Your task to perform on an android device: Open Maps and search for coffee Image 0: 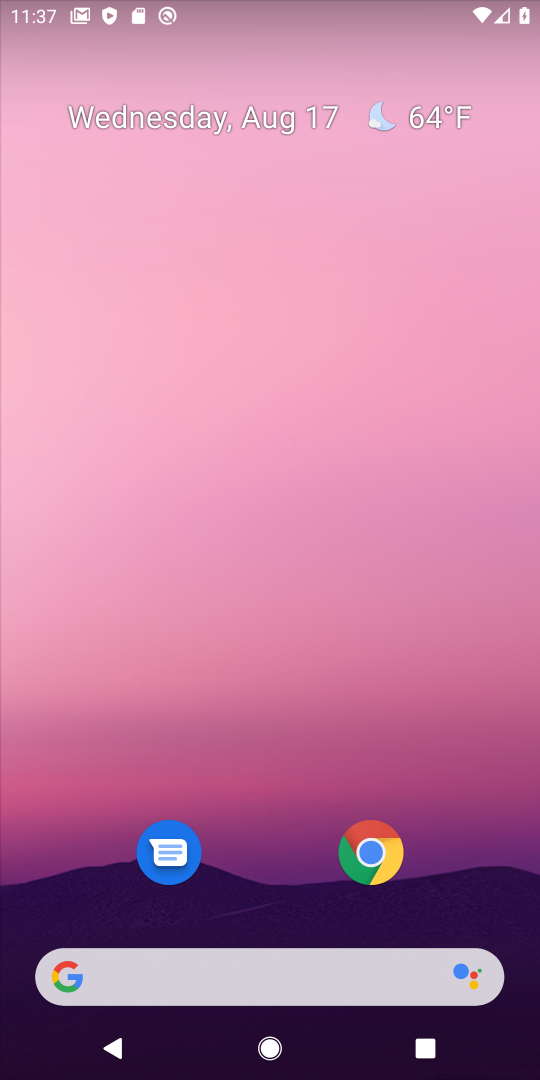
Step 0: drag from (211, 680) to (322, 236)
Your task to perform on an android device: Open Maps and search for coffee Image 1: 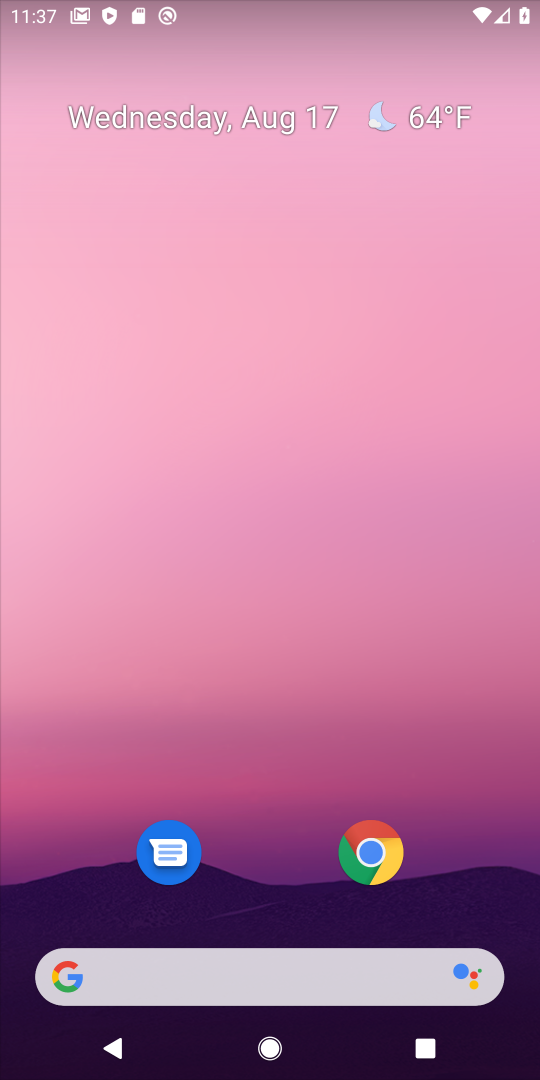
Step 1: task complete